Your task to perform on an android device: change text size in settings app Image 0: 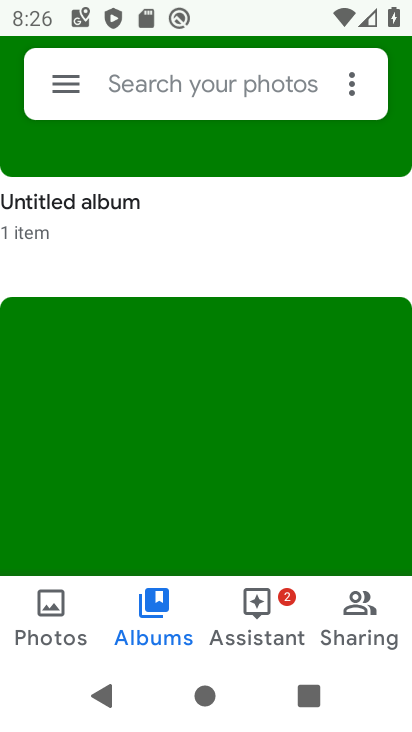
Step 0: drag from (226, 554) to (227, 187)
Your task to perform on an android device: change text size in settings app Image 1: 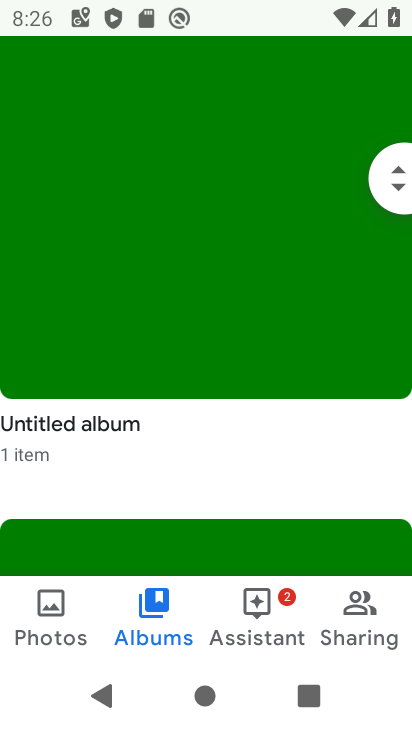
Step 1: press home button
Your task to perform on an android device: change text size in settings app Image 2: 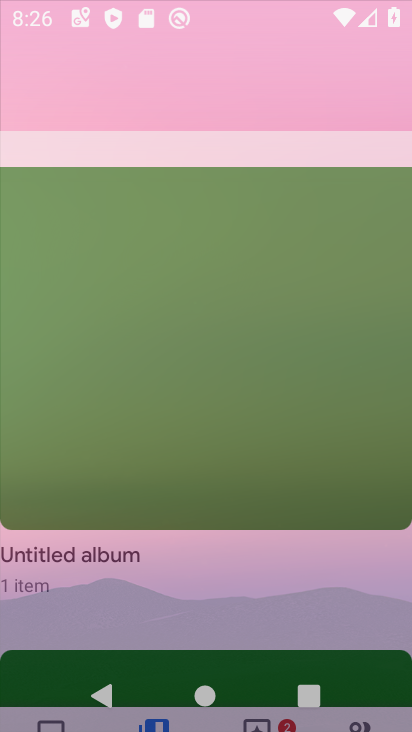
Step 2: drag from (160, 549) to (237, 0)
Your task to perform on an android device: change text size in settings app Image 3: 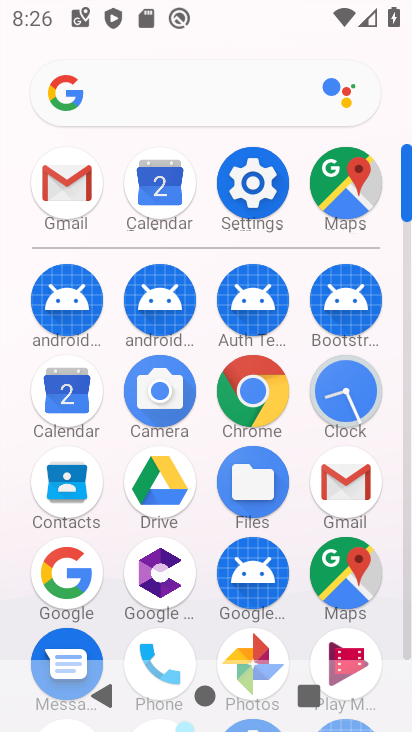
Step 3: click (240, 177)
Your task to perform on an android device: change text size in settings app Image 4: 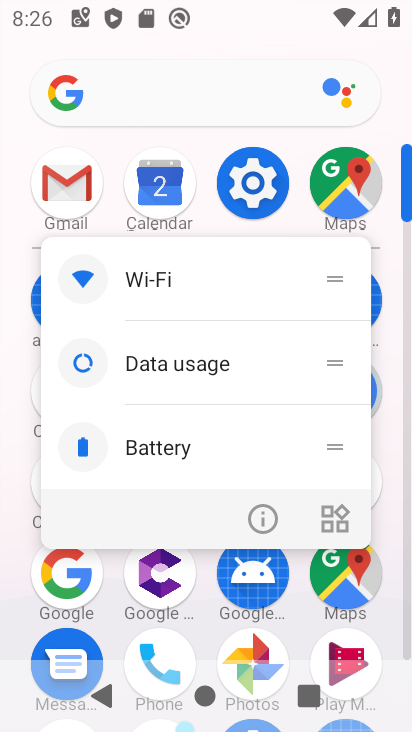
Step 4: click (254, 515)
Your task to perform on an android device: change text size in settings app Image 5: 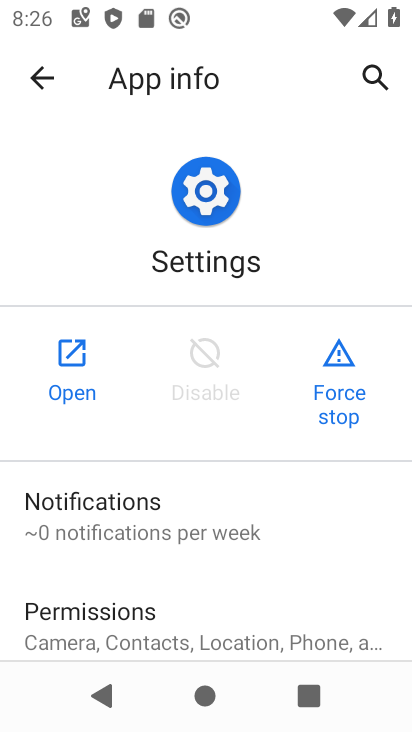
Step 5: click (63, 359)
Your task to perform on an android device: change text size in settings app Image 6: 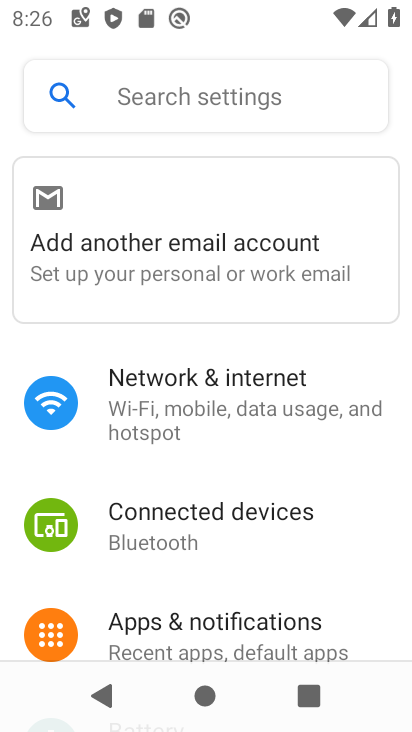
Step 6: drag from (201, 525) to (246, 104)
Your task to perform on an android device: change text size in settings app Image 7: 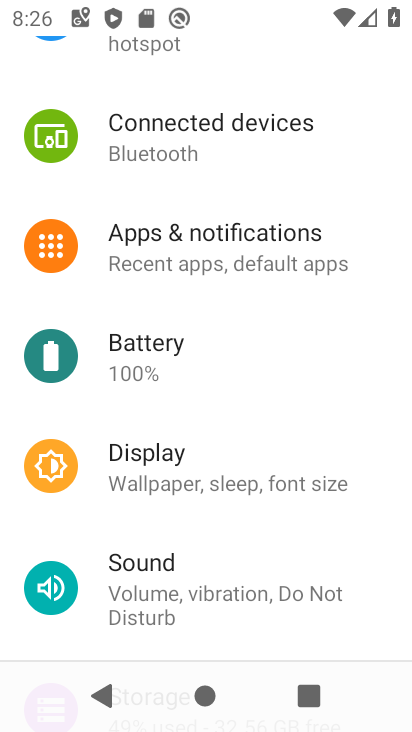
Step 7: drag from (229, 518) to (296, 45)
Your task to perform on an android device: change text size in settings app Image 8: 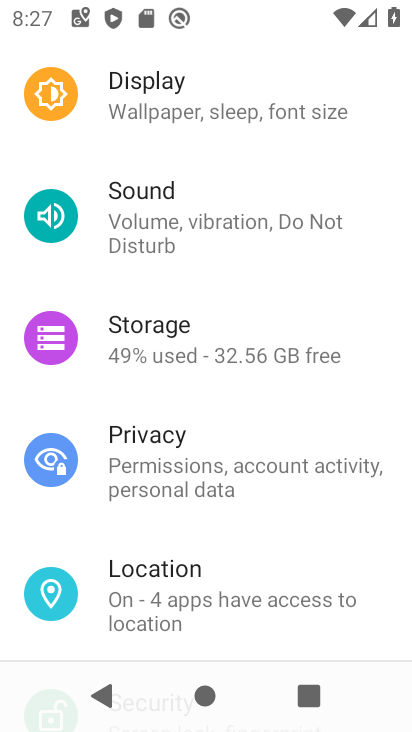
Step 8: drag from (229, 557) to (282, 56)
Your task to perform on an android device: change text size in settings app Image 9: 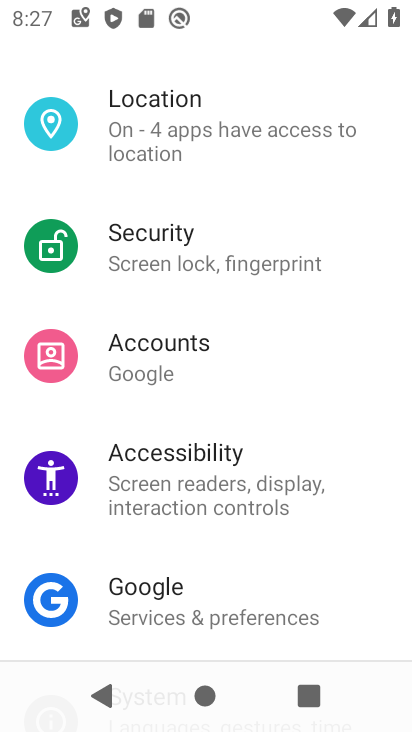
Step 9: drag from (211, 559) to (270, 210)
Your task to perform on an android device: change text size in settings app Image 10: 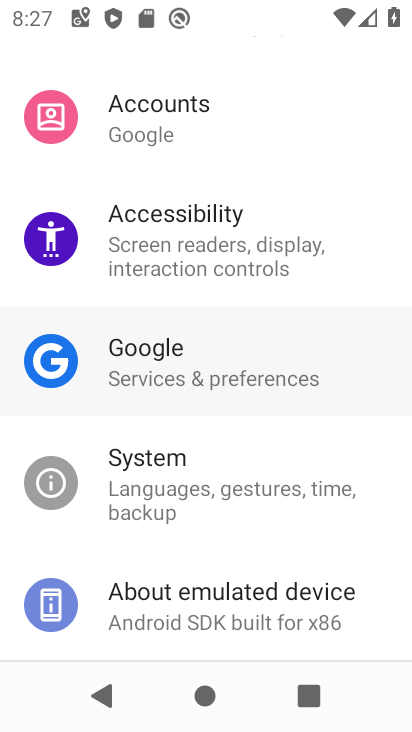
Step 10: drag from (281, 148) to (340, 677)
Your task to perform on an android device: change text size in settings app Image 11: 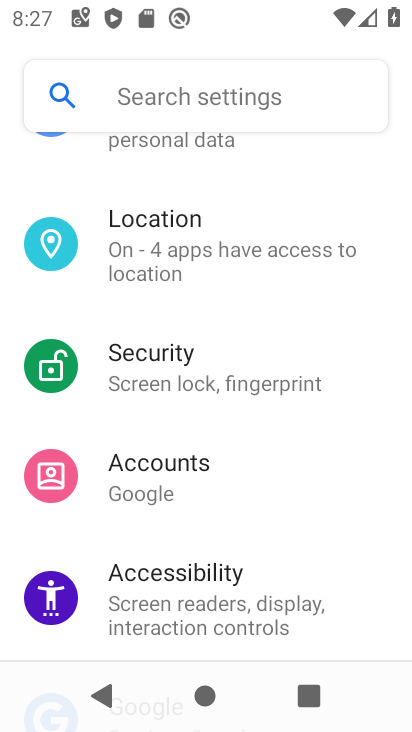
Step 11: drag from (223, 315) to (181, 731)
Your task to perform on an android device: change text size in settings app Image 12: 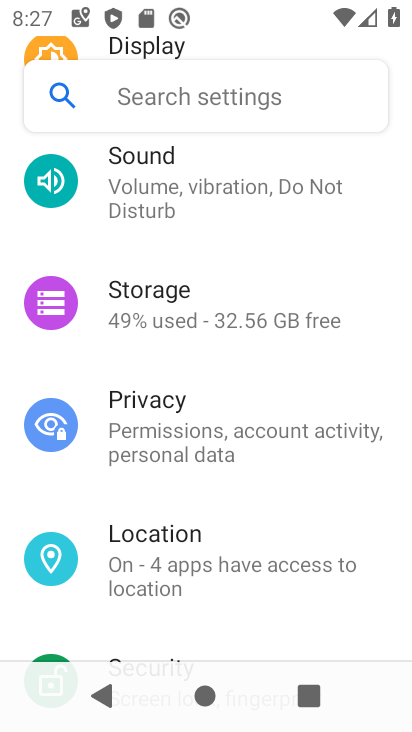
Step 12: drag from (239, 269) to (279, 709)
Your task to perform on an android device: change text size in settings app Image 13: 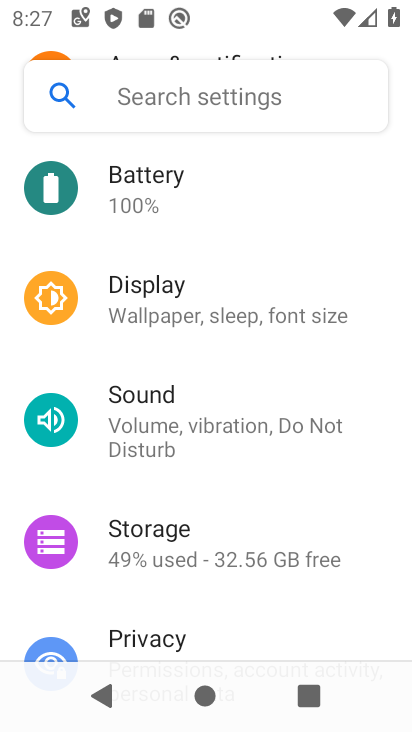
Step 13: drag from (210, 324) to (205, 696)
Your task to perform on an android device: change text size in settings app Image 14: 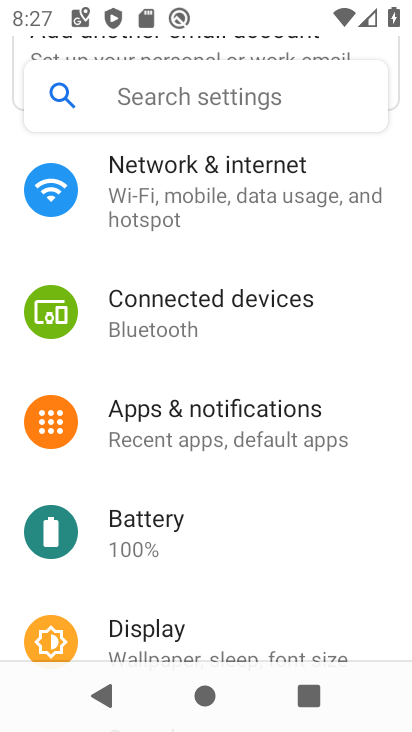
Step 14: drag from (201, 622) to (259, 198)
Your task to perform on an android device: change text size in settings app Image 15: 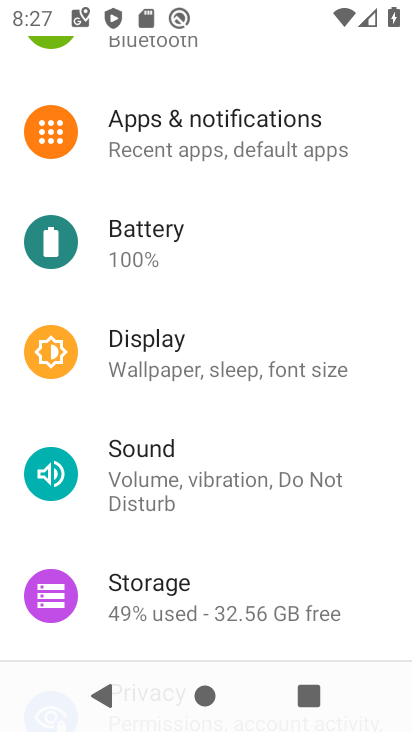
Step 15: drag from (244, 226) to (224, 672)
Your task to perform on an android device: change text size in settings app Image 16: 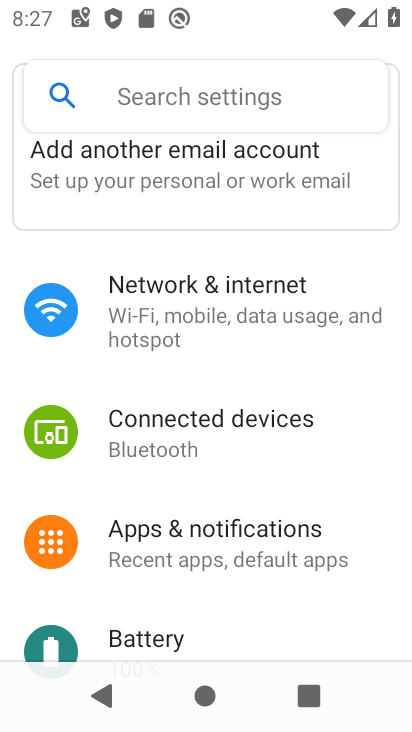
Step 16: drag from (236, 363) to (256, 711)
Your task to perform on an android device: change text size in settings app Image 17: 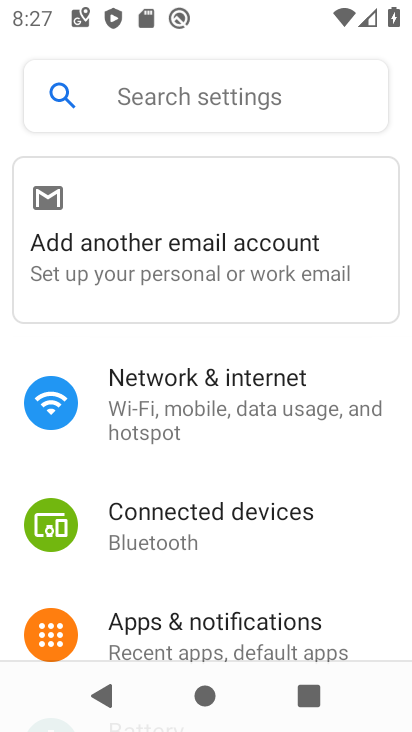
Step 17: drag from (209, 553) to (306, 131)
Your task to perform on an android device: change text size in settings app Image 18: 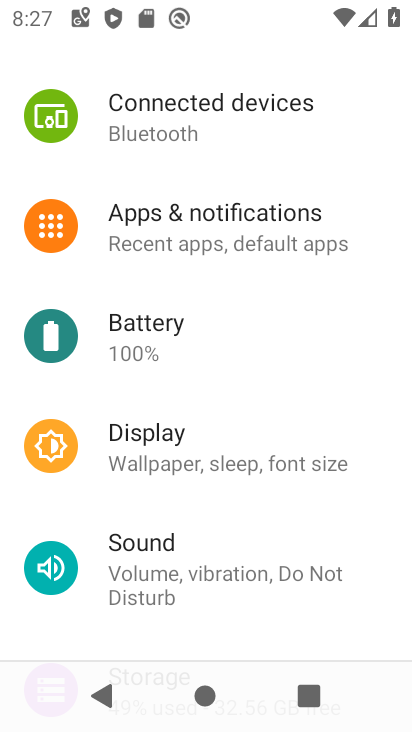
Step 18: drag from (225, 540) to (288, 184)
Your task to perform on an android device: change text size in settings app Image 19: 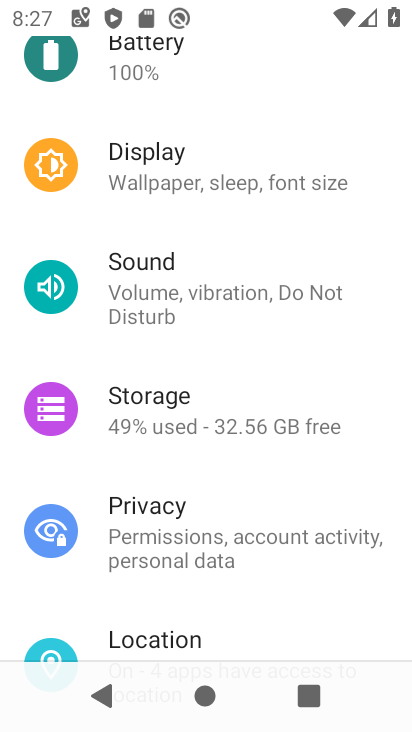
Step 19: drag from (179, 550) to (231, 308)
Your task to perform on an android device: change text size in settings app Image 20: 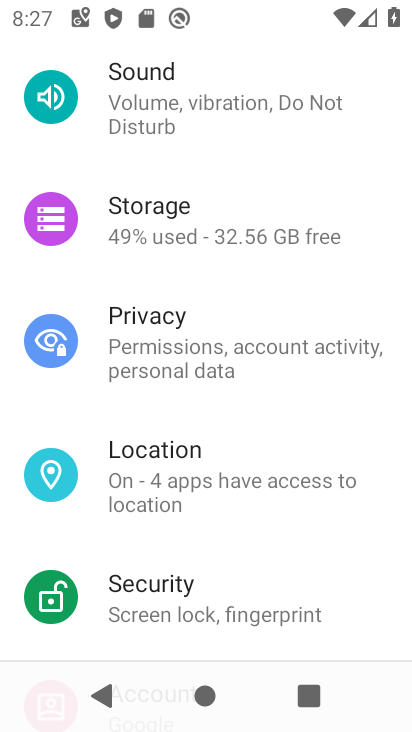
Step 20: drag from (219, 181) to (205, 534)
Your task to perform on an android device: change text size in settings app Image 21: 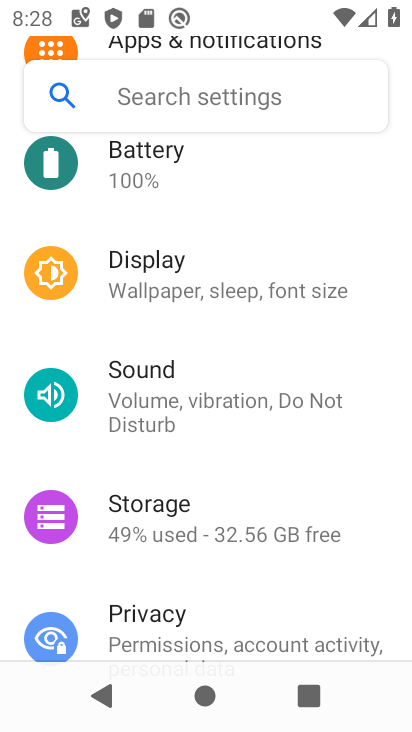
Step 21: click (190, 309)
Your task to perform on an android device: change text size in settings app Image 22: 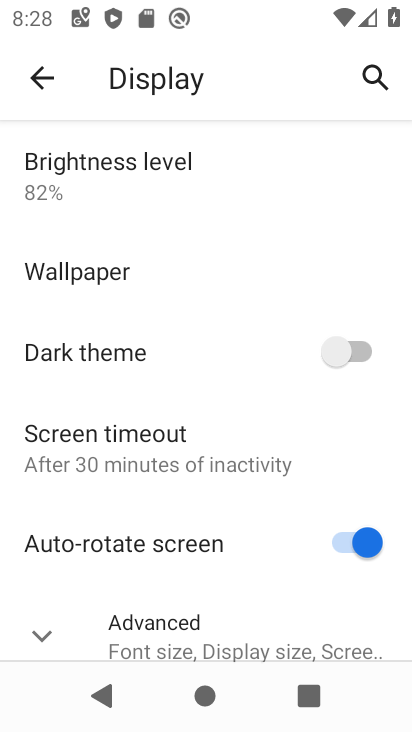
Step 22: drag from (241, 615) to (244, 405)
Your task to perform on an android device: change text size in settings app Image 23: 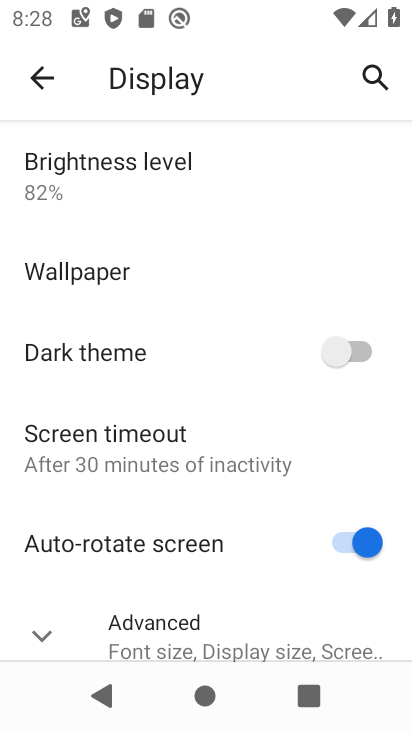
Step 23: drag from (195, 608) to (234, 392)
Your task to perform on an android device: change text size in settings app Image 24: 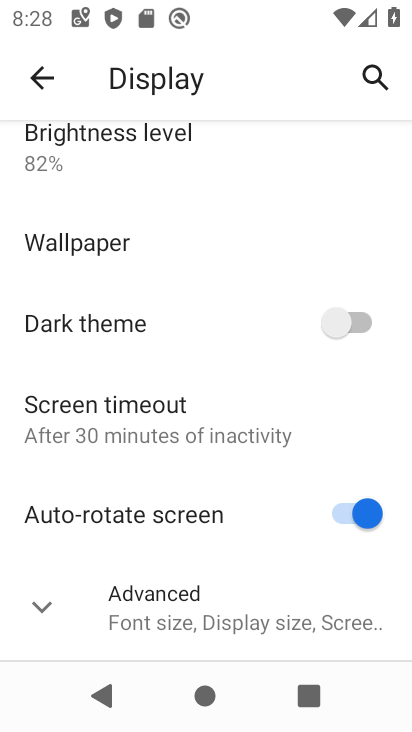
Step 24: click (145, 626)
Your task to perform on an android device: change text size in settings app Image 25: 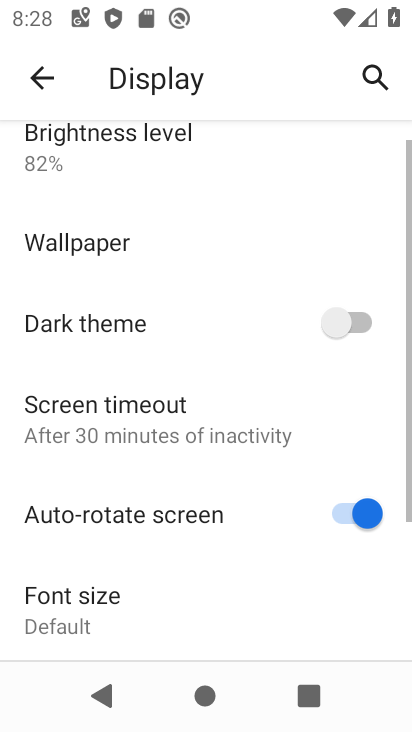
Step 25: click (133, 615)
Your task to perform on an android device: change text size in settings app Image 26: 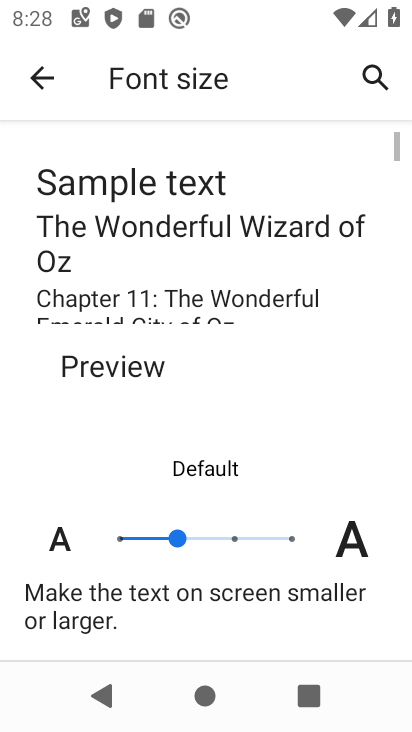
Step 26: task complete